Your task to perform on an android device: Search for Mexican restaurants on Maps Image 0: 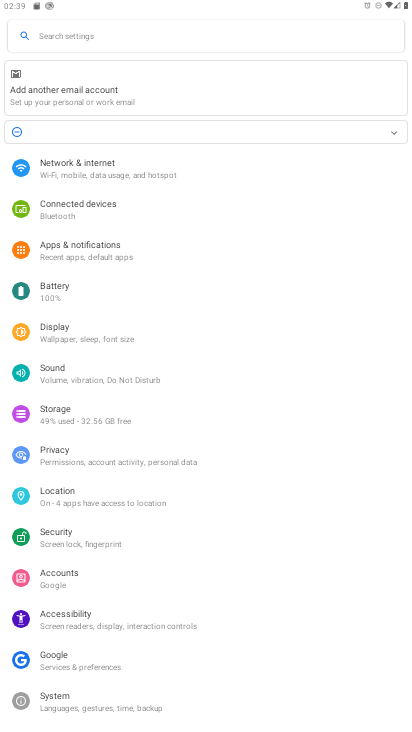
Step 0: press home button
Your task to perform on an android device: Search for Mexican restaurants on Maps Image 1: 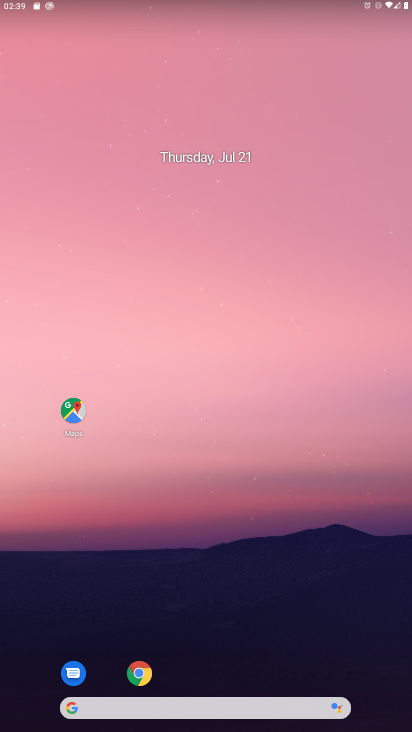
Step 1: click (81, 413)
Your task to perform on an android device: Search for Mexican restaurants on Maps Image 2: 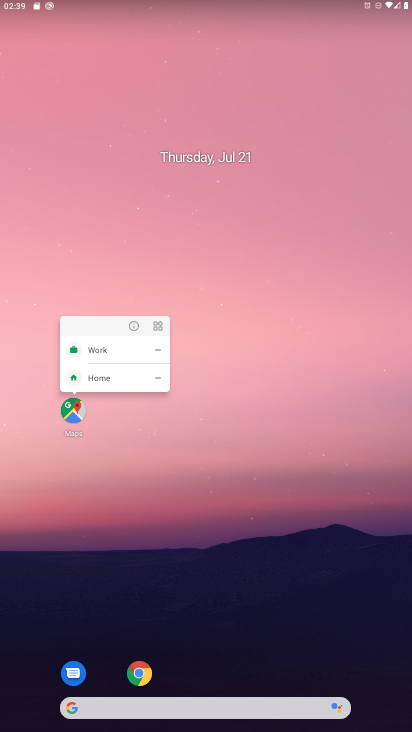
Step 2: click (75, 411)
Your task to perform on an android device: Search for Mexican restaurants on Maps Image 3: 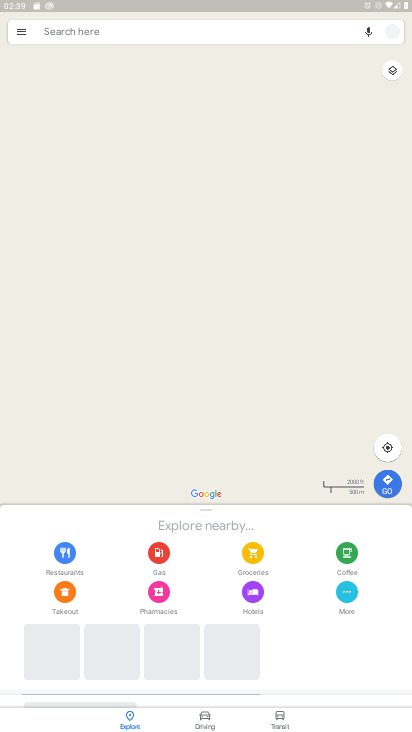
Step 3: click (165, 22)
Your task to perform on an android device: Search for Mexican restaurants on Maps Image 4: 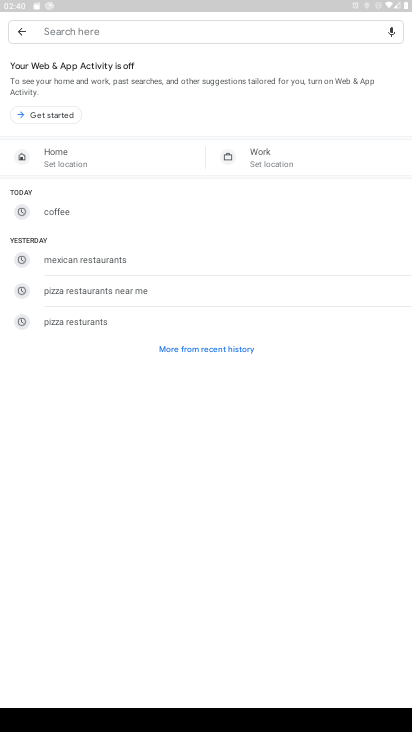
Step 4: click (116, 259)
Your task to perform on an android device: Search for Mexican restaurants on Maps Image 5: 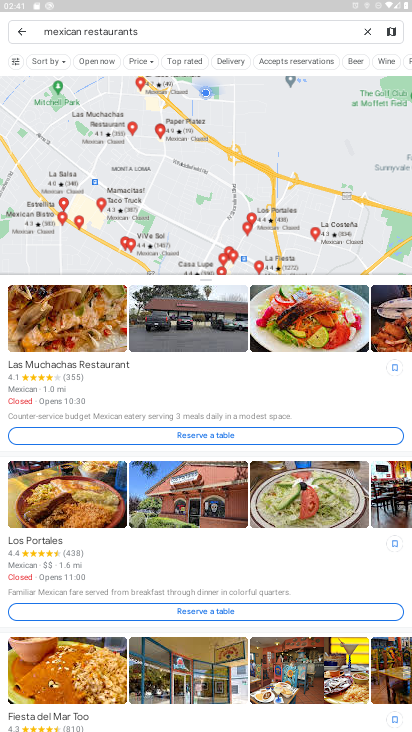
Step 5: task complete